Your task to perform on an android device: uninstall "Truecaller" Image 0: 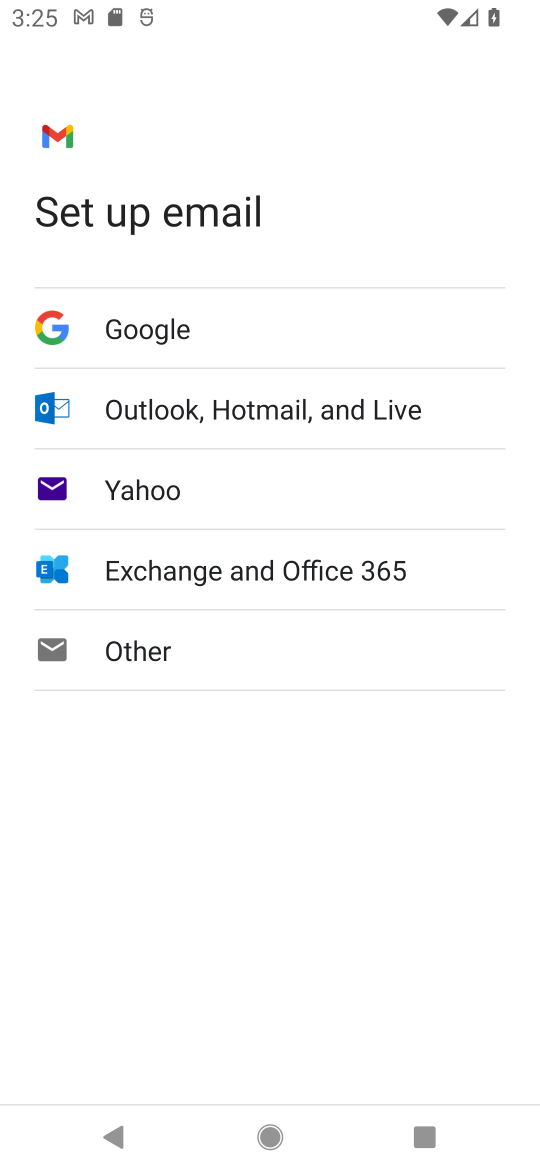
Step 0: press home button
Your task to perform on an android device: uninstall "Truecaller" Image 1: 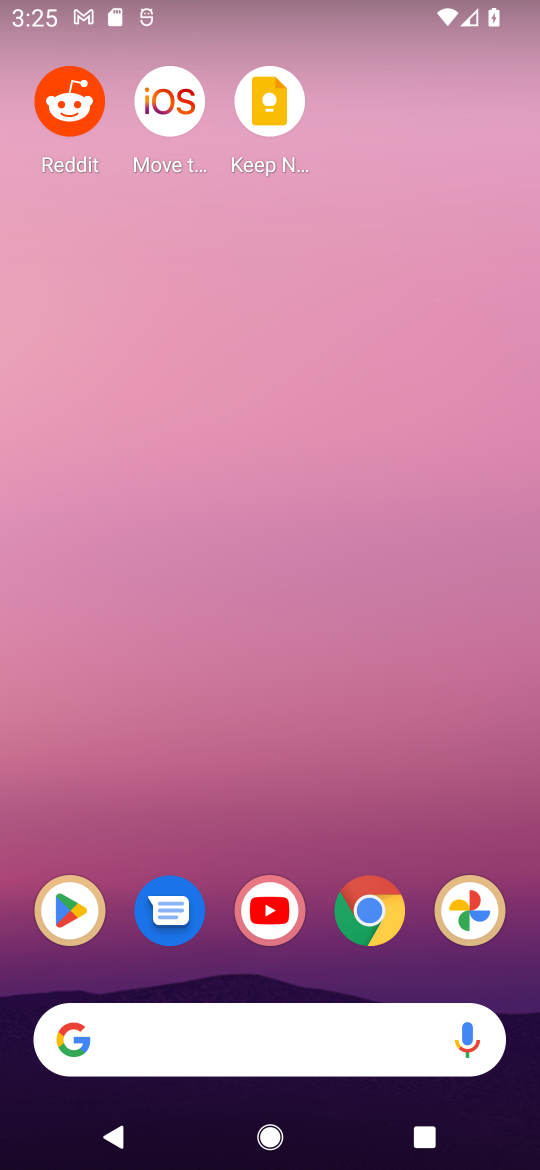
Step 1: drag from (310, 616) to (368, 170)
Your task to perform on an android device: uninstall "Truecaller" Image 2: 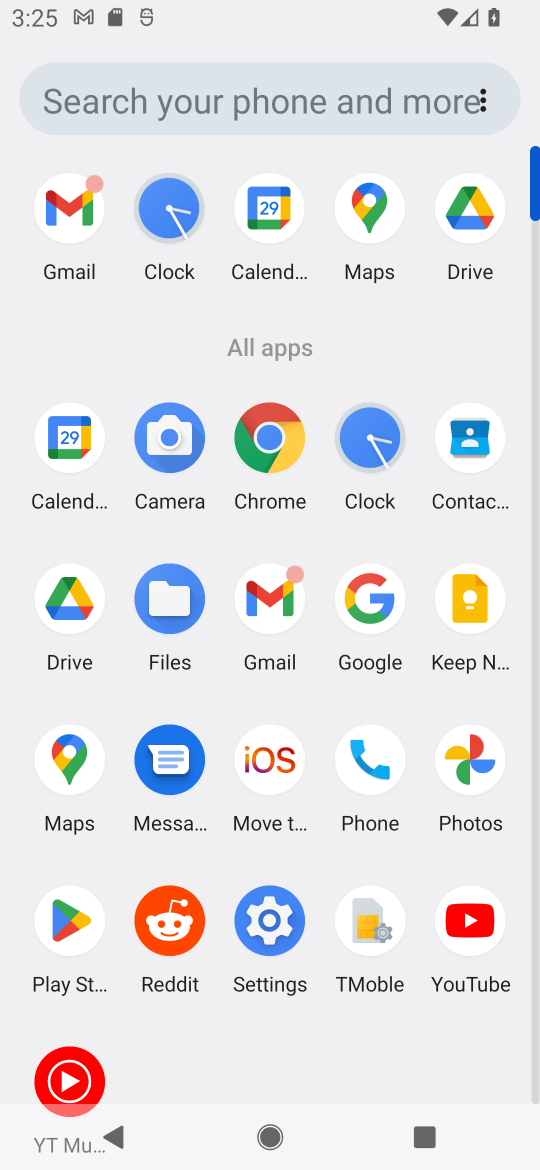
Step 2: click (58, 902)
Your task to perform on an android device: uninstall "Truecaller" Image 3: 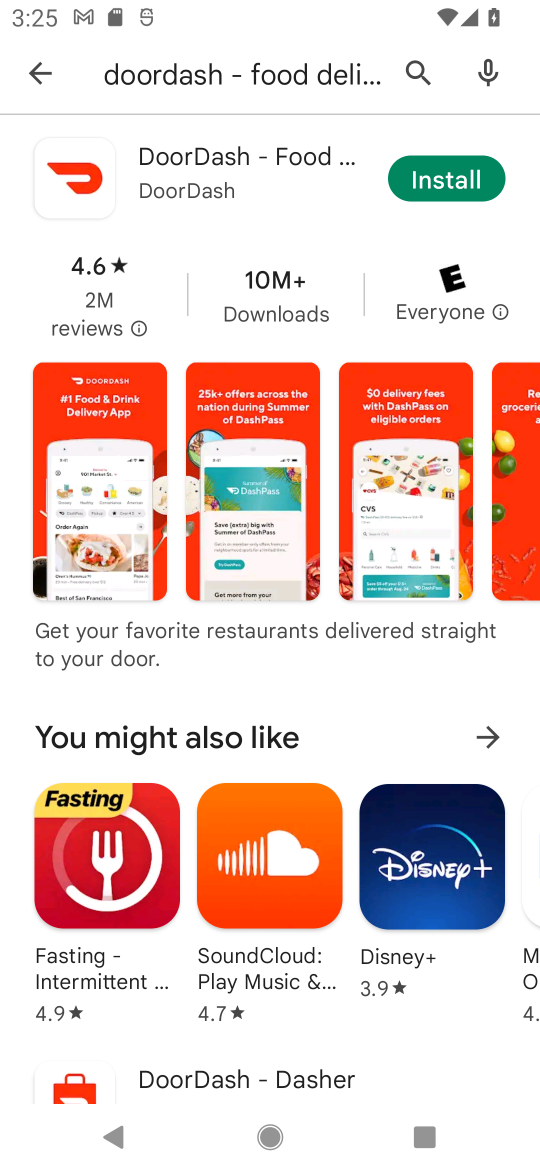
Step 3: click (56, 79)
Your task to perform on an android device: uninstall "Truecaller" Image 4: 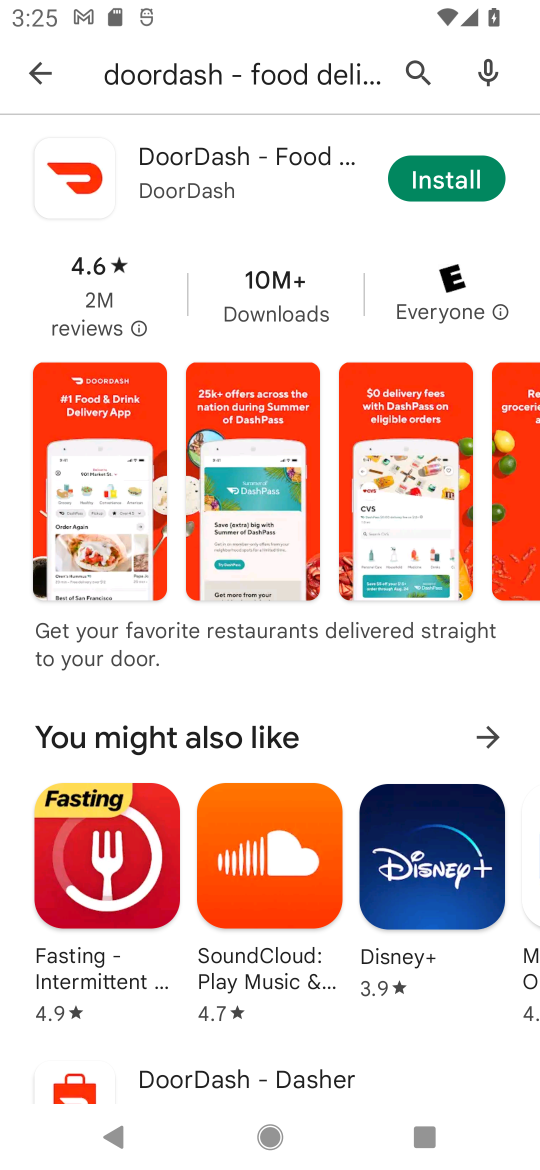
Step 4: press back button
Your task to perform on an android device: uninstall "Truecaller" Image 5: 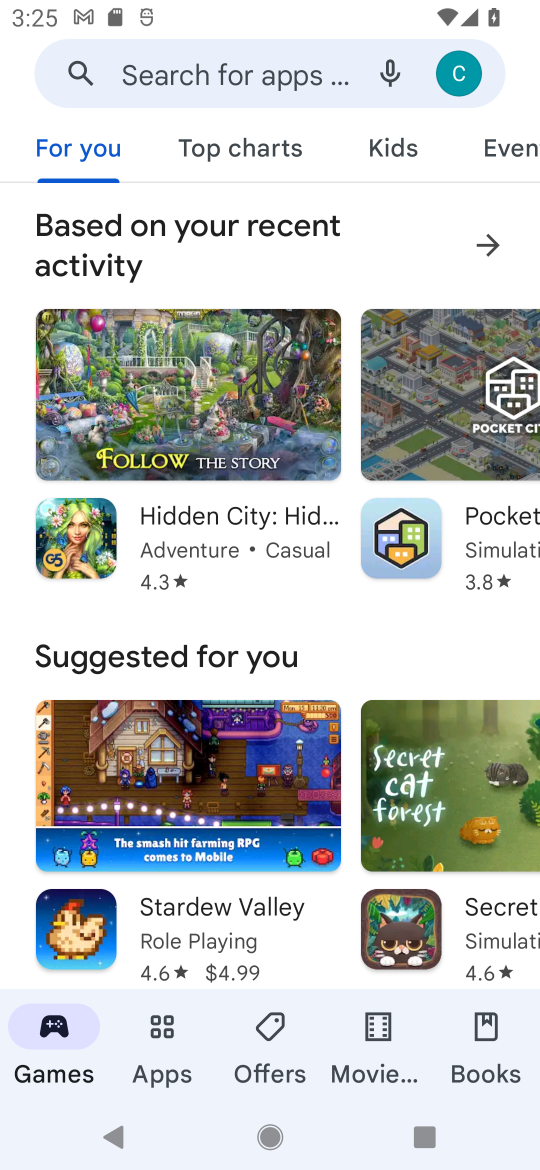
Step 5: click (227, 80)
Your task to perform on an android device: uninstall "Truecaller" Image 6: 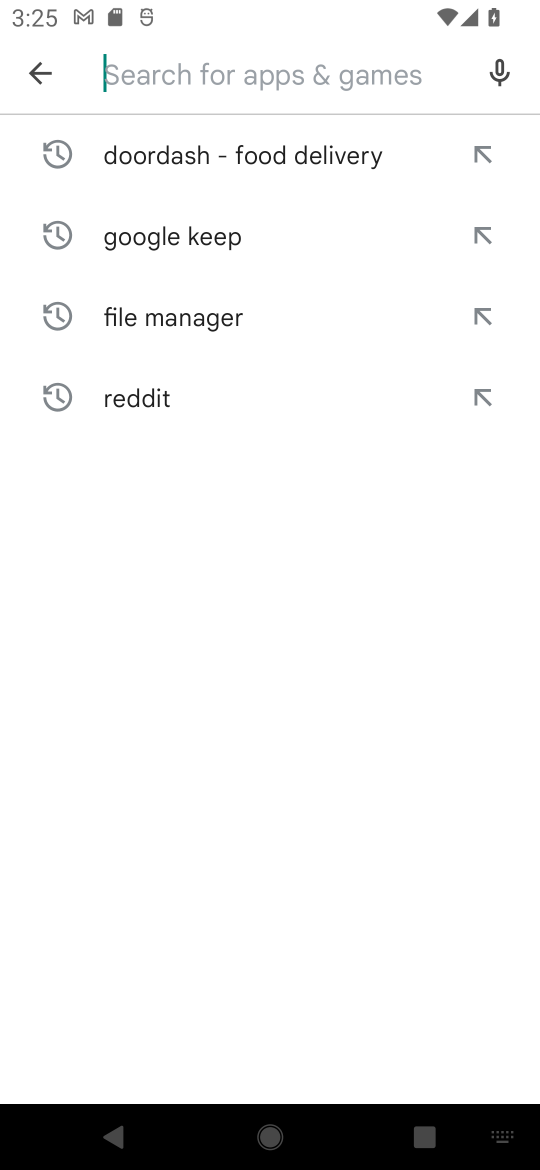
Step 6: type "Truecaller"
Your task to perform on an android device: uninstall "Truecaller" Image 7: 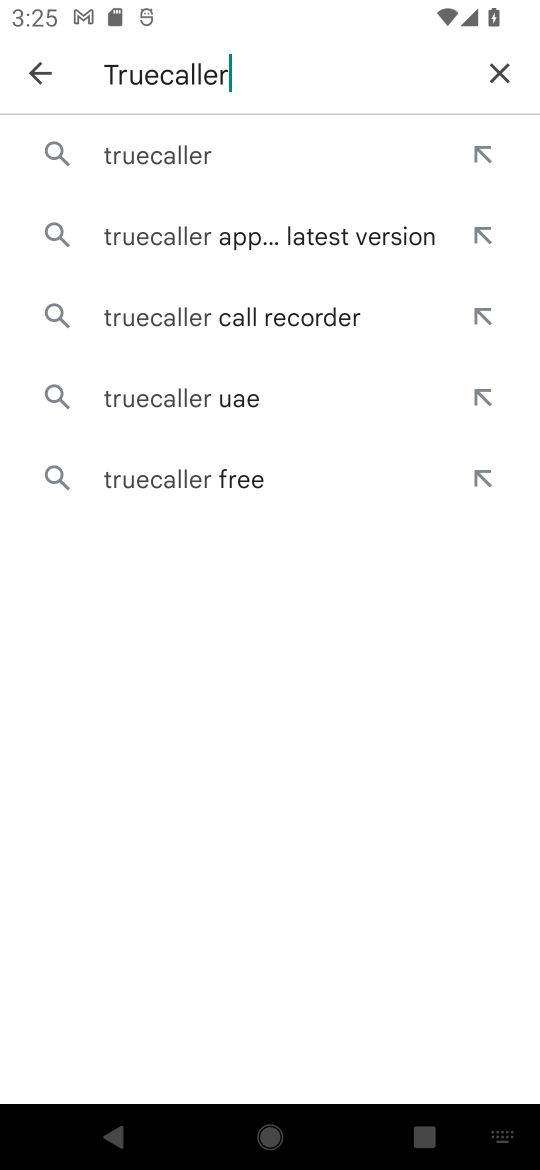
Step 7: click (175, 172)
Your task to perform on an android device: uninstall "Truecaller" Image 8: 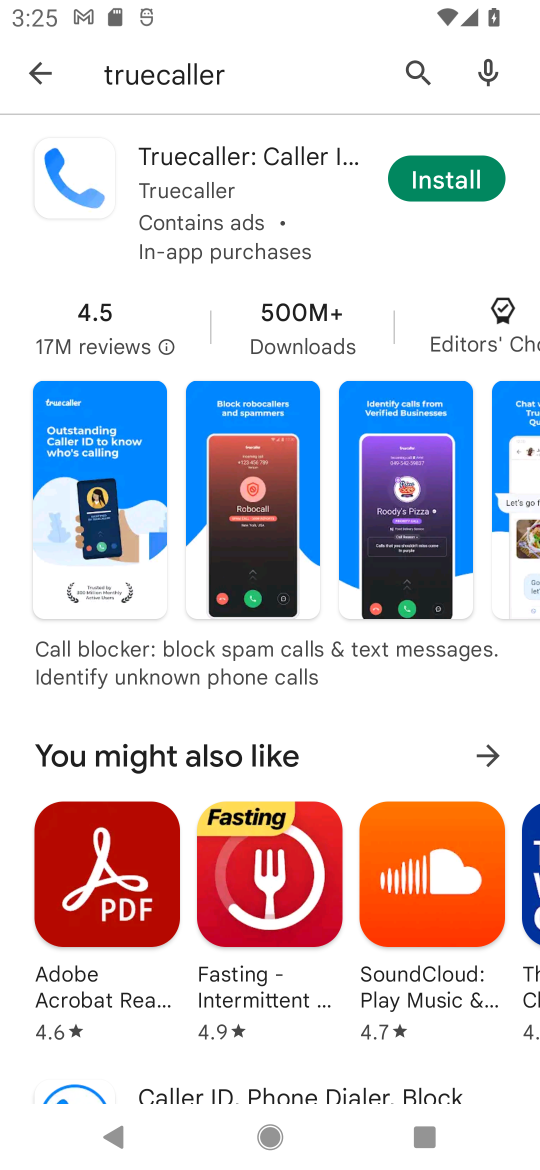
Step 8: task complete